Your task to perform on an android device: empty trash in google photos Image 0: 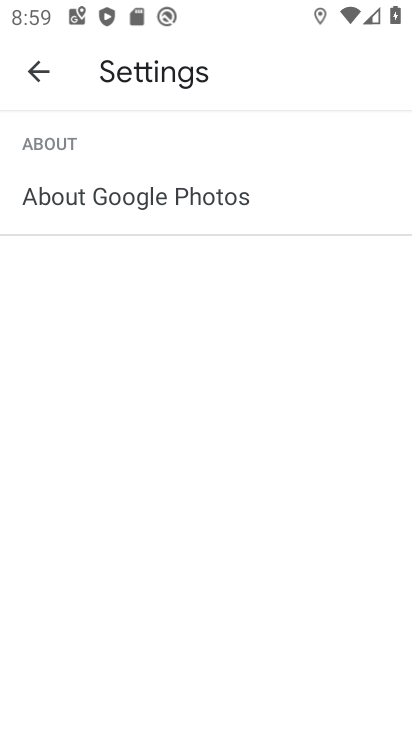
Step 0: press home button
Your task to perform on an android device: empty trash in google photos Image 1: 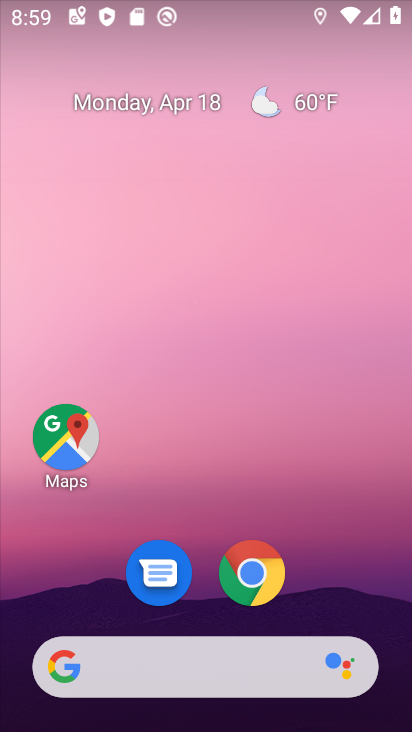
Step 1: drag from (353, 510) to (334, 45)
Your task to perform on an android device: empty trash in google photos Image 2: 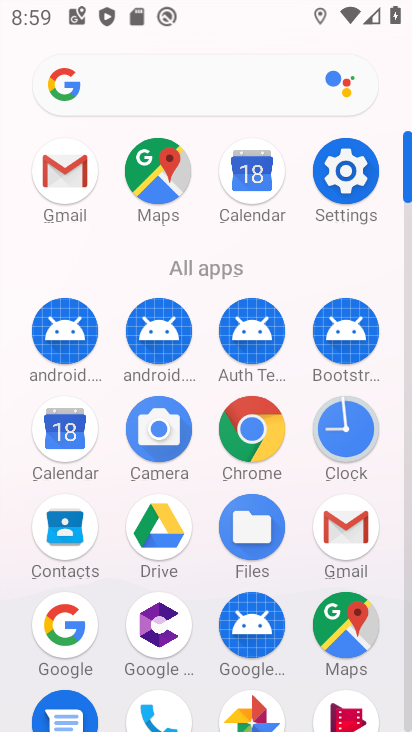
Step 2: drag from (201, 665) to (201, 236)
Your task to perform on an android device: empty trash in google photos Image 3: 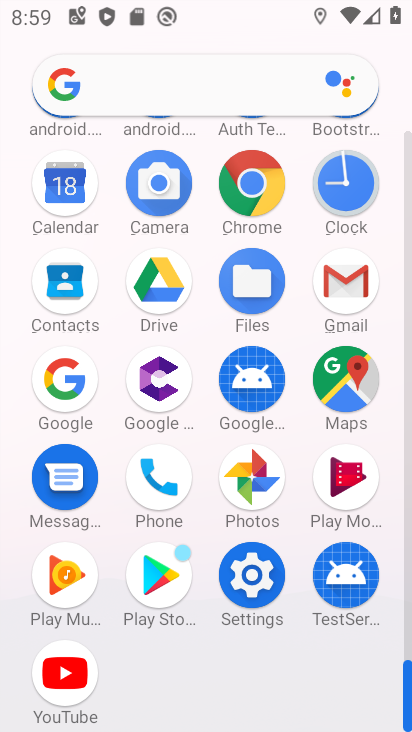
Step 3: click (245, 471)
Your task to perform on an android device: empty trash in google photos Image 4: 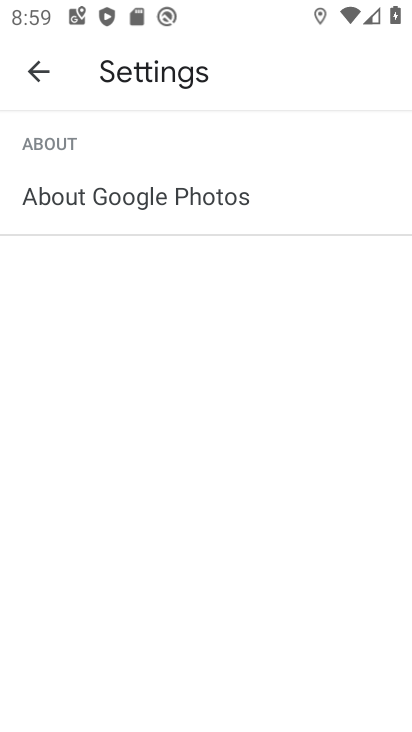
Step 4: press back button
Your task to perform on an android device: empty trash in google photos Image 5: 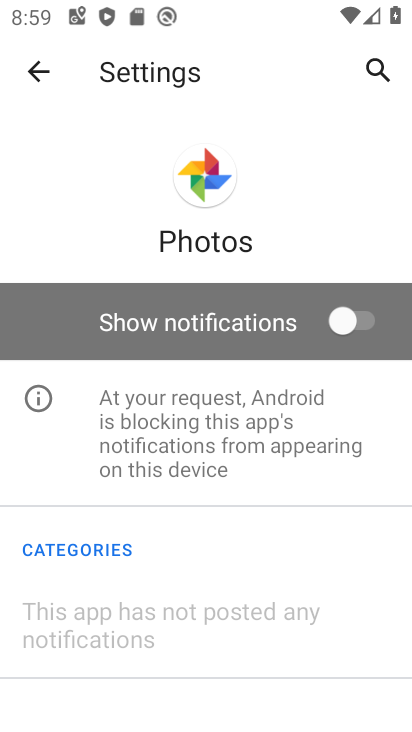
Step 5: press back button
Your task to perform on an android device: empty trash in google photos Image 6: 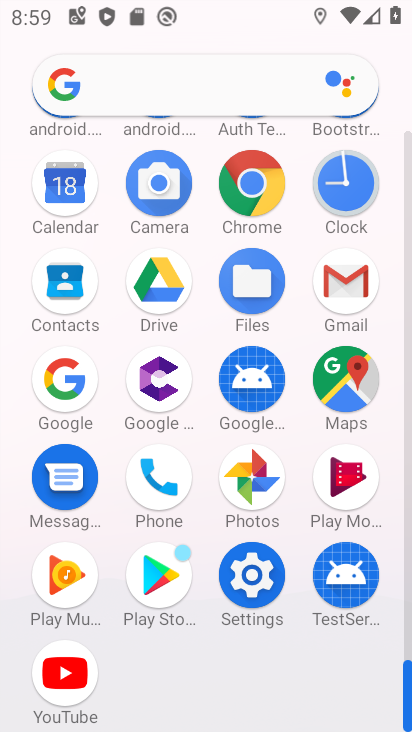
Step 6: click (240, 471)
Your task to perform on an android device: empty trash in google photos Image 7: 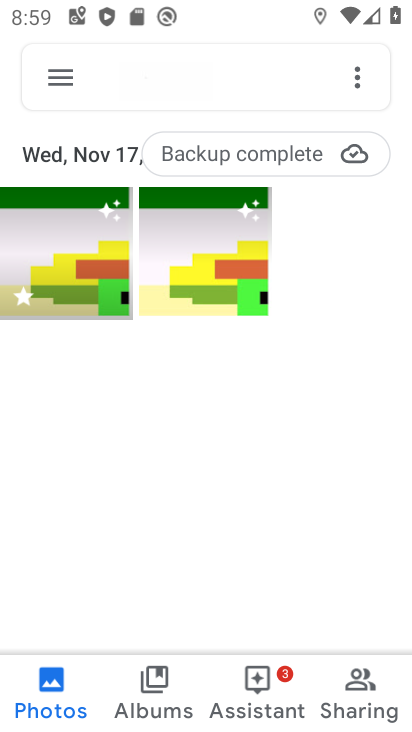
Step 7: click (59, 79)
Your task to perform on an android device: empty trash in google photos Image 8: 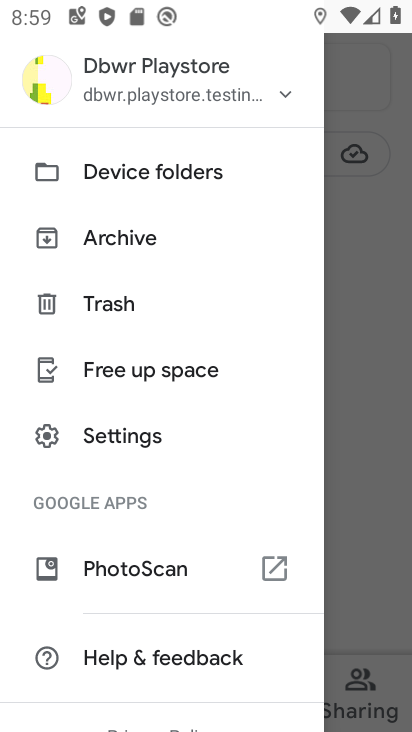
Step 8: click (50, 304)
Your task to perform on an android device: empty trash in google photos Image 9: 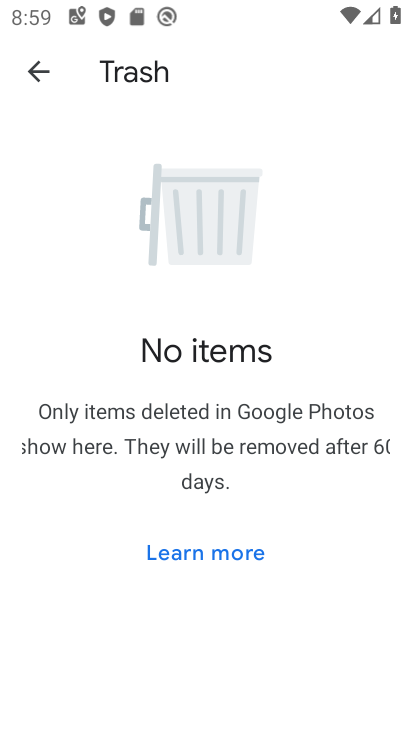
Step 9: task complete